Your task to perform on an android device: change alarm snooze length Image 0: 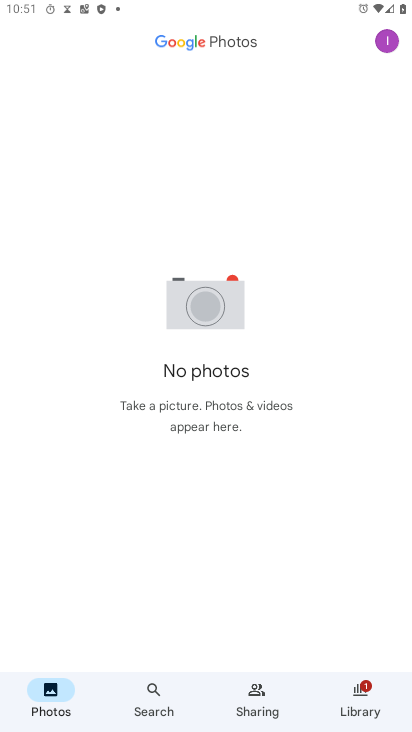
Step 0: drag from (181, 666) to (172, 9)
Your task to perform on an android device: change alarm snooze length Image 1: 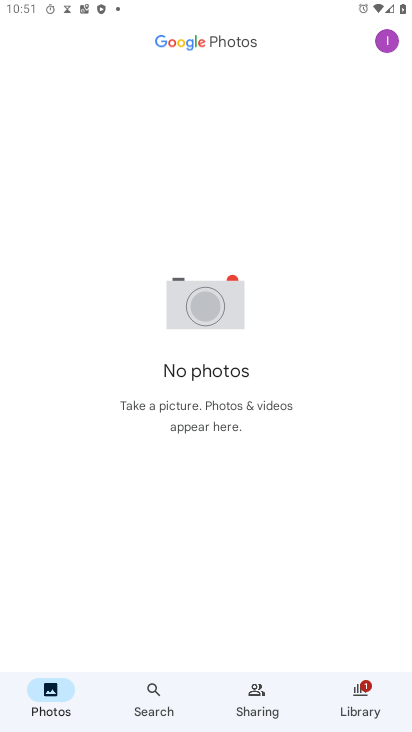
Step 1: press back button
Your task to perform on an android device: change alarm snooze length Image 2: 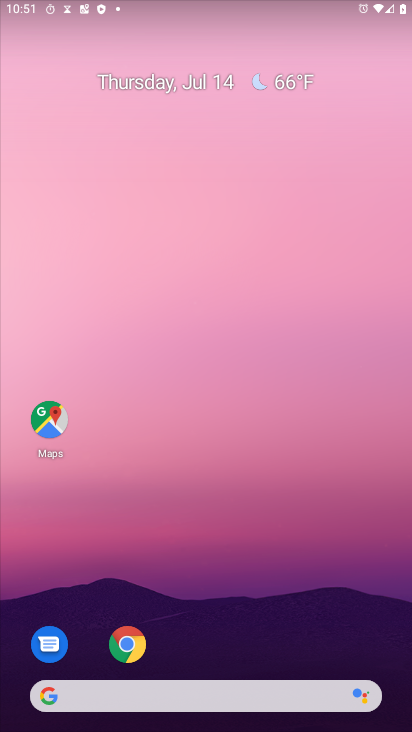
Step 2: press back button
Your task to perform on an android device: change alarm snooze length Image 3: 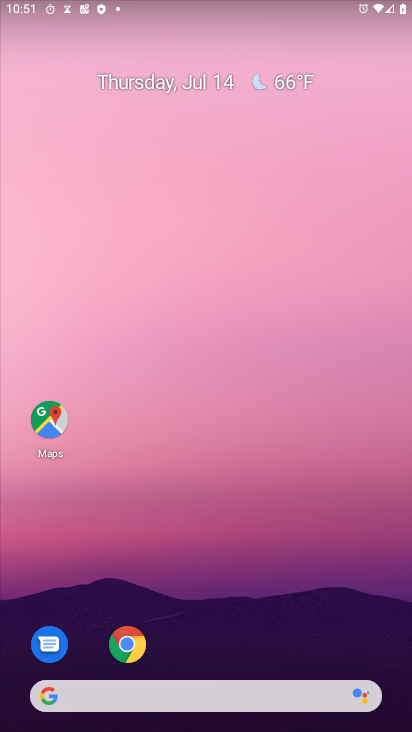
Step 3: click (249, 218)
Your task to perform on an android device: change alarm snooze length Image 4: 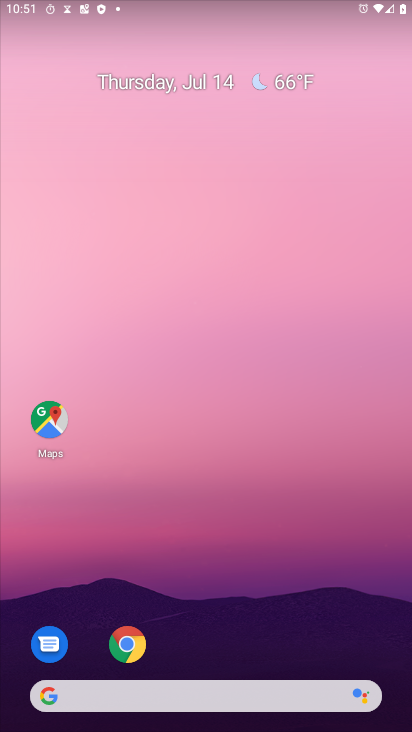
Step 4: drag from (230, 413) to (131, 16)
Your task to perform on an android device: change alarm snooze length Image 5: 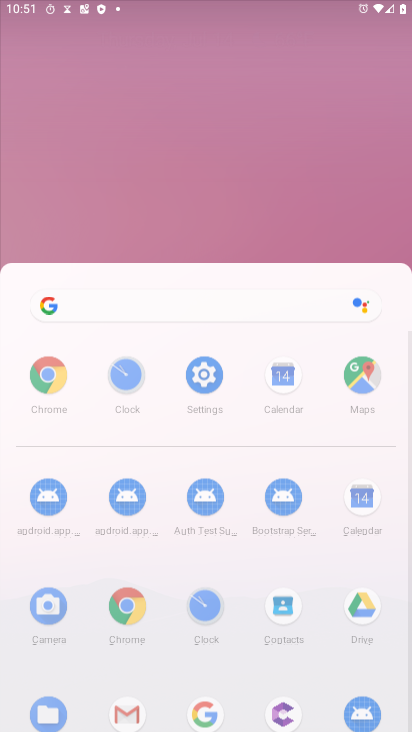
Step 5: drag from (240, 464) to (241, 4)
Your task to perform on an android device: change alarm snooze length Image 6: 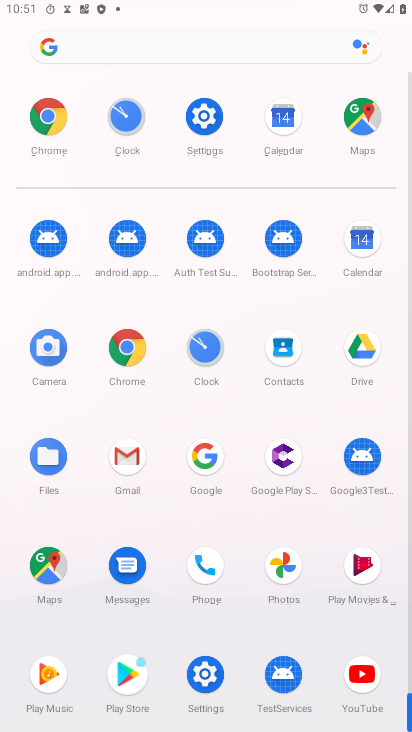
Step 6: click (204, 348)
Your task to perform on an android device: change alarm snooze length Image 7: 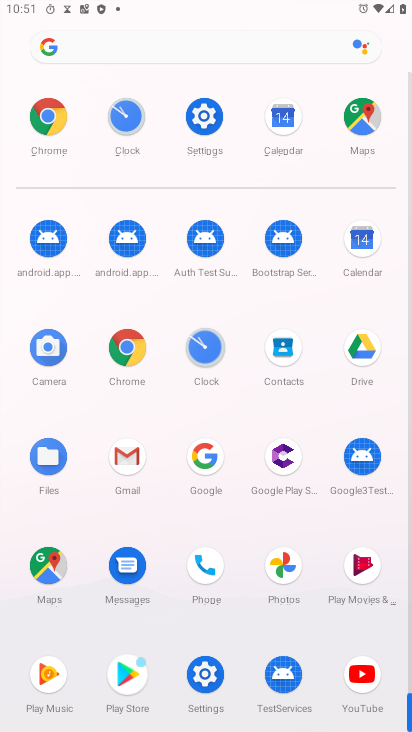
Step 7: click (204, 348)
Your task to perform on an android device: change alarm snooze length Image 8: 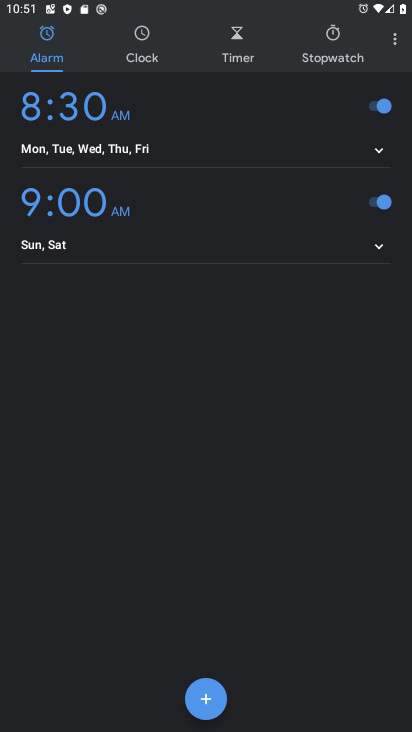
Step 8: drag from (398, 50) to (293, 75)
Your task to perform on an android device: change alarm snooze length Image 9: 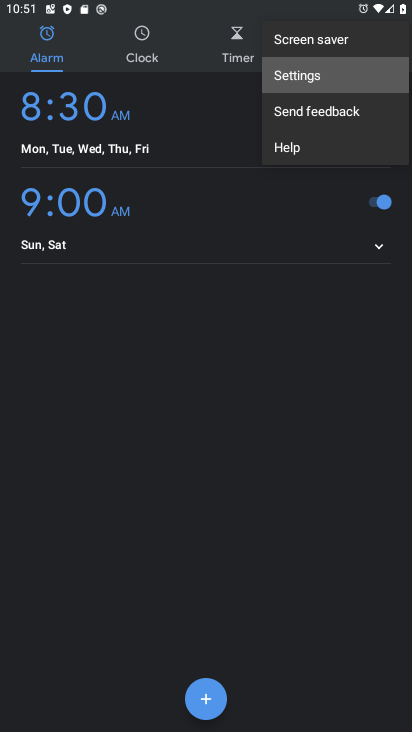
Step 9: click (293, 75)
Your task to perform on an android device: change alarm snooze length Image 10: 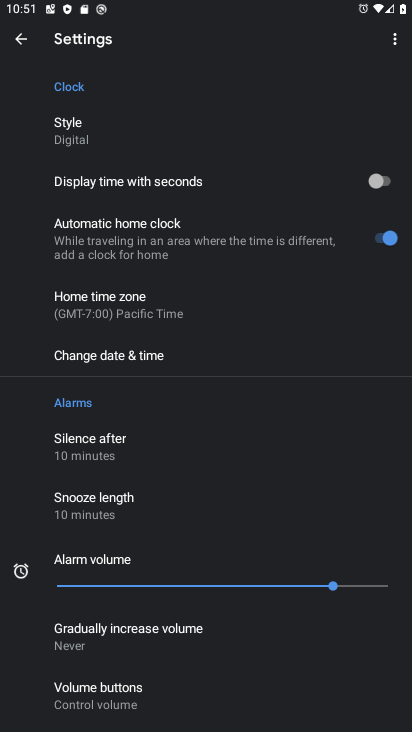
Step 10: click (83, 505)
Your task to perform on an android device: change alarm snooze length Image 11: 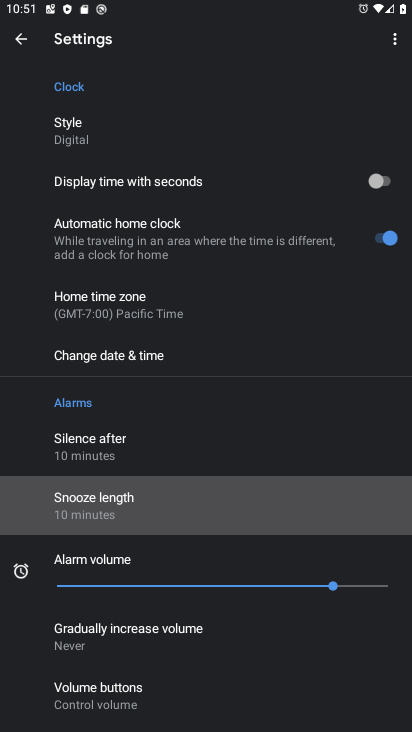
Step 11: click (83, 505)
Your task to perform on an android device: change alarm snooze length Image 12: 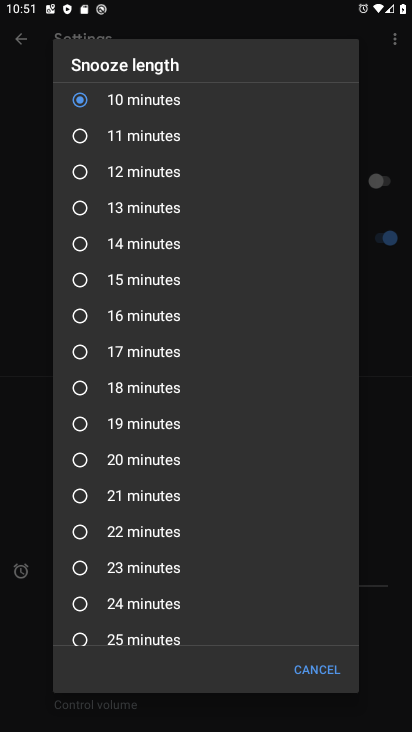
Step 12: click (76, 357)
Your task to perform on an android device: change alarm snooze length Image 13: 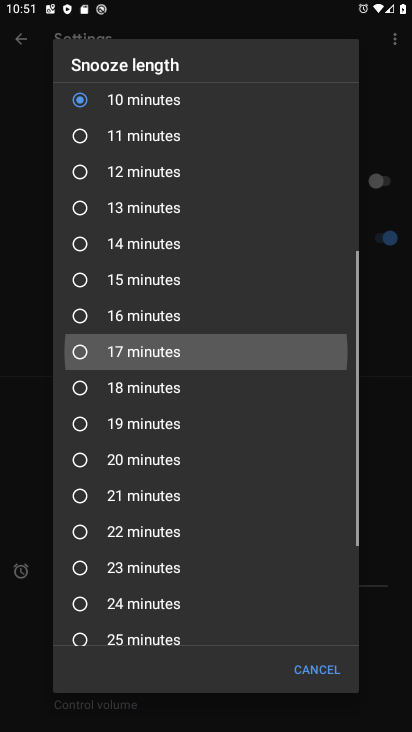
Step 13: click (76, 356)
Your task to perform on an android device: change alarm snooze length Image 14: 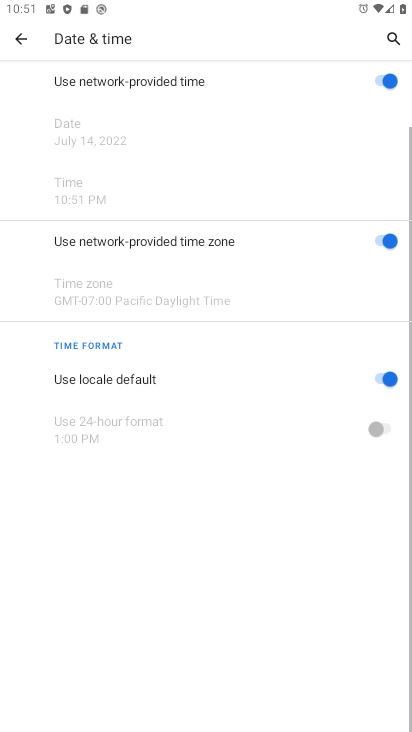
Step 14: task complete